Your task to perform on an android device: turn off priority inbox in the gmail app Image 0: 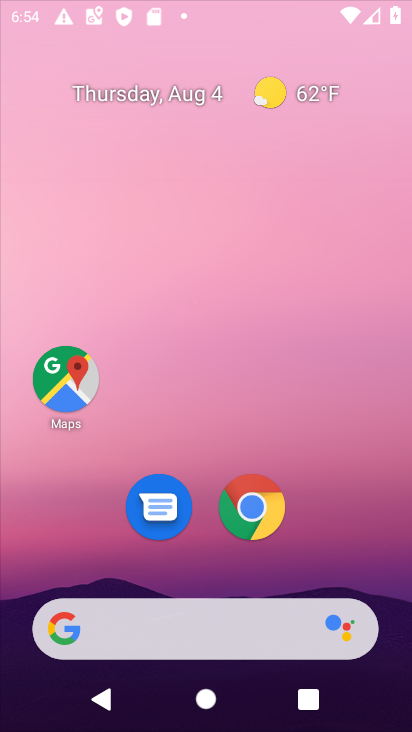
Step 0: click (236, 30)
Your task to perform on an android device: turn off priority inbox in the gmail app Image 1: 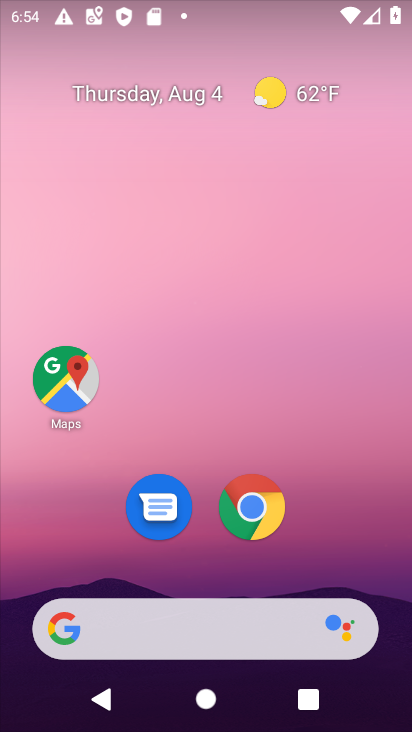
Step 1: drag from (392, 616) to (289, 51)
Your task to perform on an android device: turn off priority inbox in the gmail app Image 2: 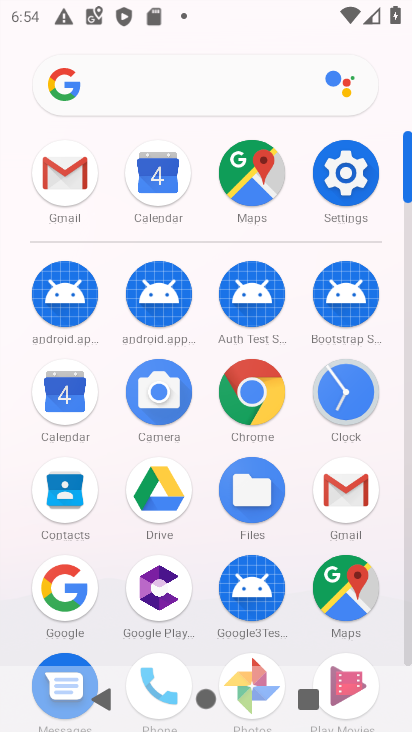
Step 2: click (339, 477)
Your task to perform on an android device: turn off priority inbox in the gmail app Image 3: 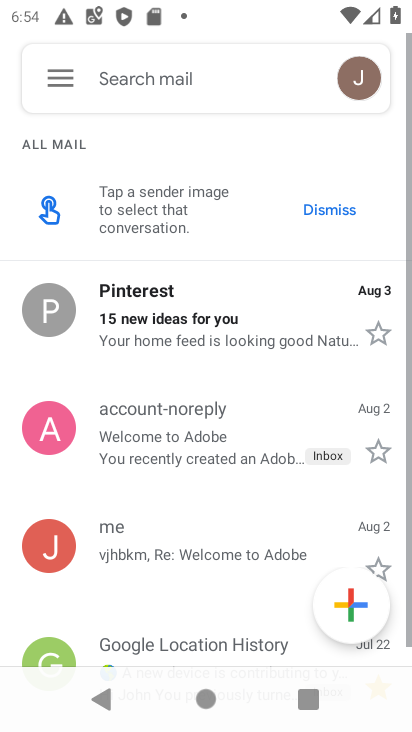
Step 3: click (57, 79)
Your task to perform on an android device: turn off priority inbox in the gmail app Image 4: 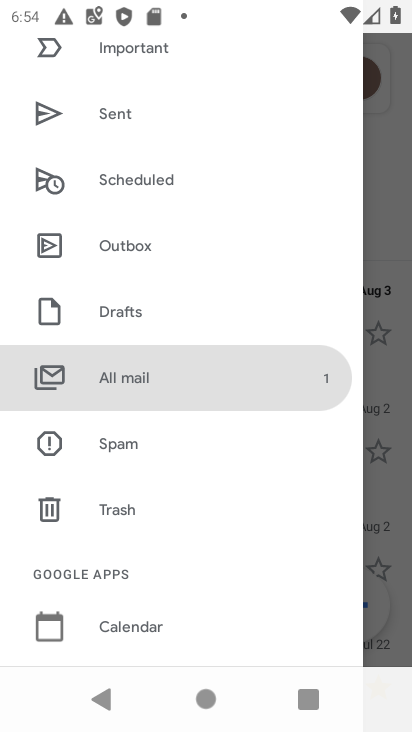
Step 4: drag from (164, 605) to (177, 27)
Your task to perform on an android device: turn off priority inbox in the gmail app Image 5: 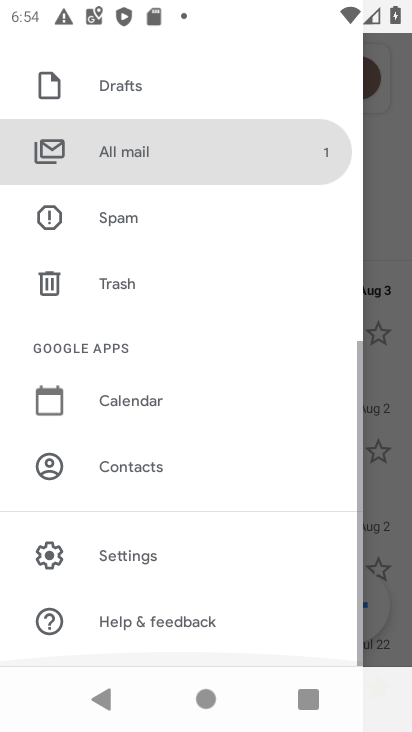
Step 5: click (151, 551)
Your task to perform on an android device: turn off priority inbox in the gmail app Image 6: 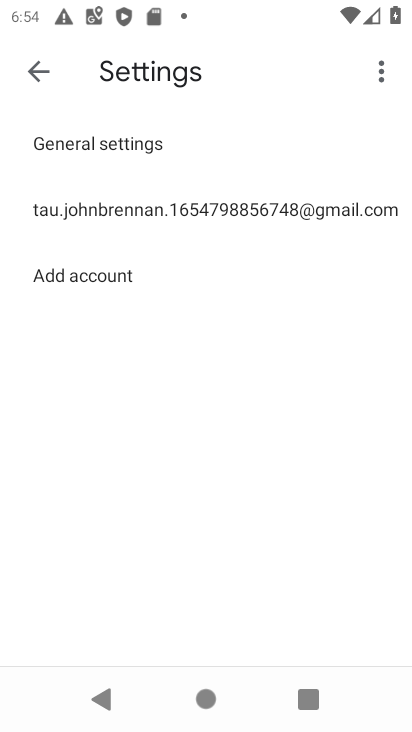
Step 6: click (104, 207)
Your task to perform on an android device: turn off priority inbox in the gmail app Image 7: 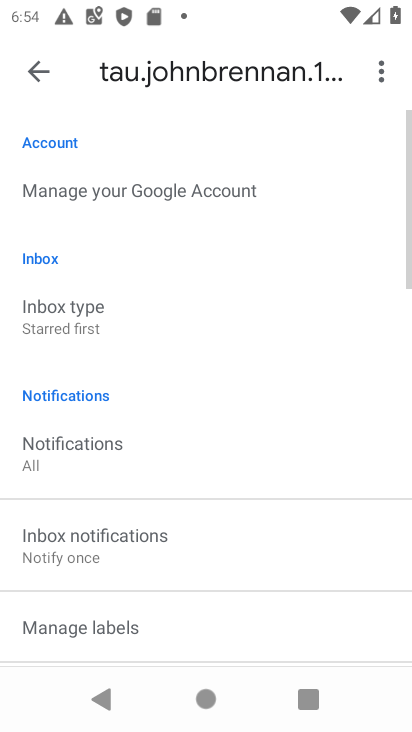
Step 7: click (78, 316)
Your task to perform on an android device: turn off priority inbox in the gmail app Image 8: 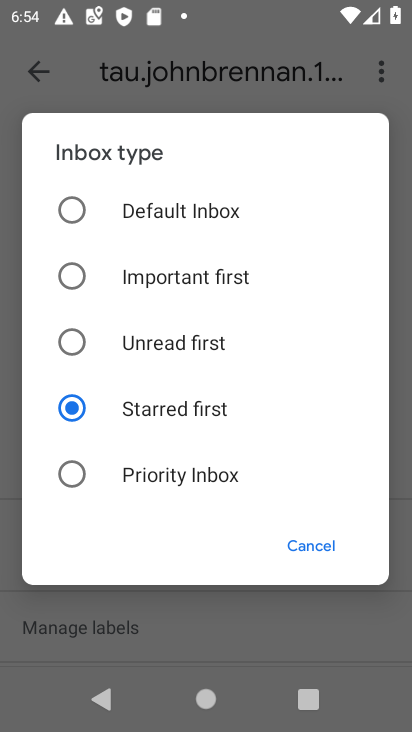
Step 8: click (63, 206)
Your task to perform on an android device: turn off priority inbox in the gmail app Image 9: 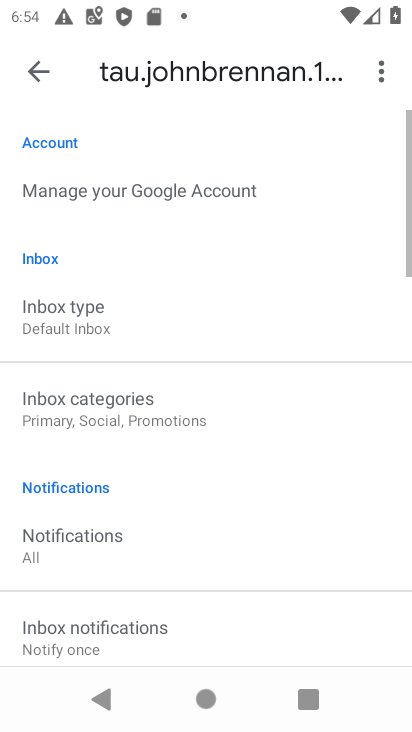
Step 9: task complete